Your task to perform on an android device: move a message to another label in the gmail app Image 0: 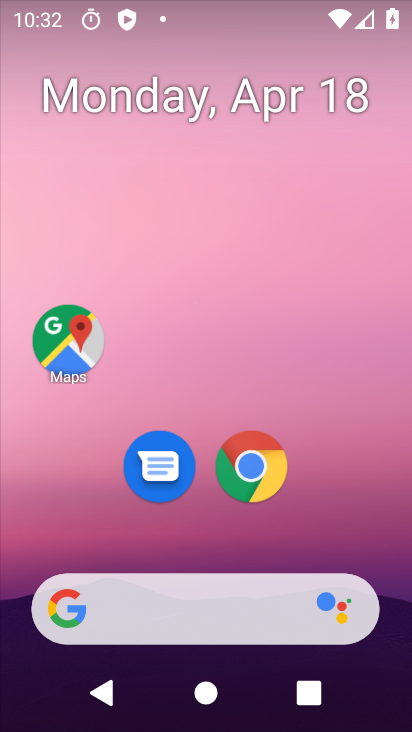
Step 0: drag from (219, 549) to (238, 27)
Your task to perform on an android device: move a message to another label in the gmail app Image 1: 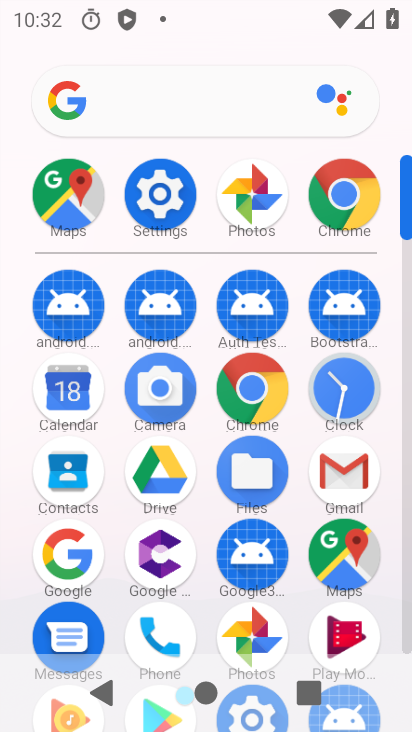
Step 1: click (408, 510)
Your task to perform on an android device: move a message to another label in the gmail app Image 2: 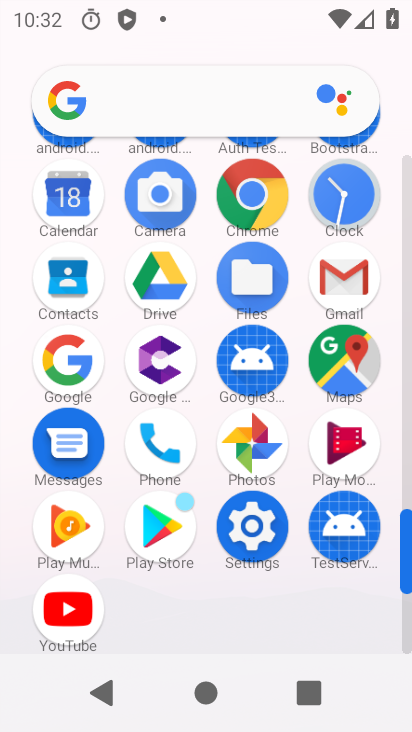
Step 2: click (358, 293)
Your task to perform on an android device: move a message to another label in the gmail app Image 3: 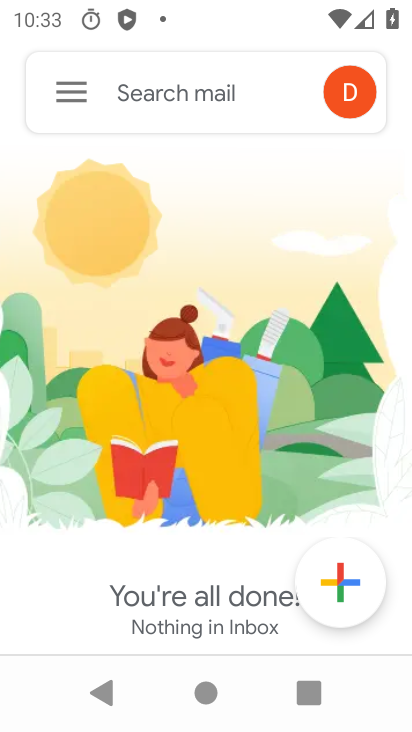
Step 3: click (84, 100)
Your task to perform on an android device: move a message to another label in the gmail app Image 4: 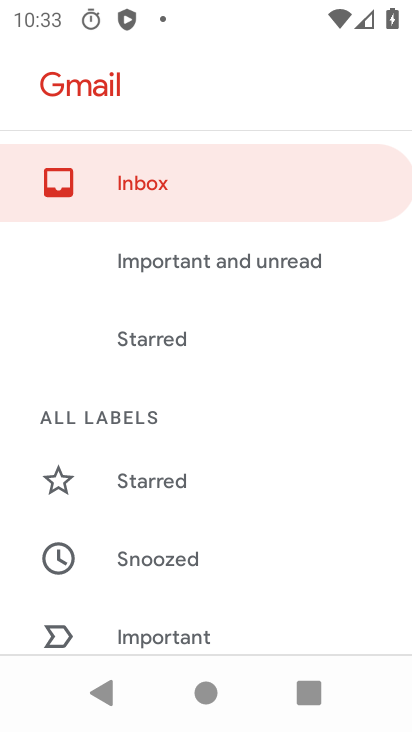
Step 4: drag from (173, 579) to (263, 127)
Your task to perform on an android device: move a message to another label in the gmail app Image 5: 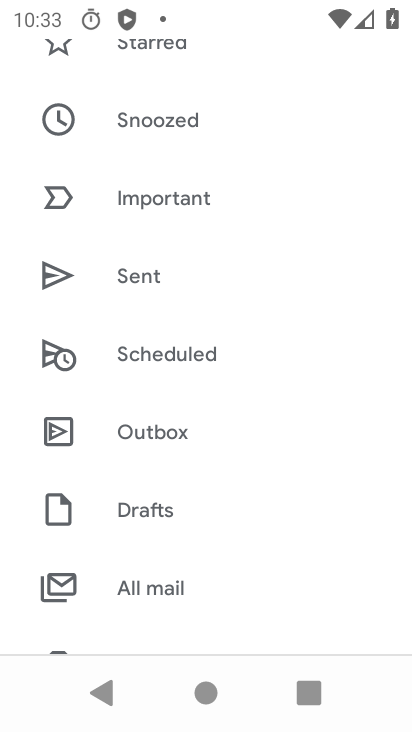
Step 5: click (181, 572)
Your task to perform on an android device: move a message to another label in the gmail app Image 6: 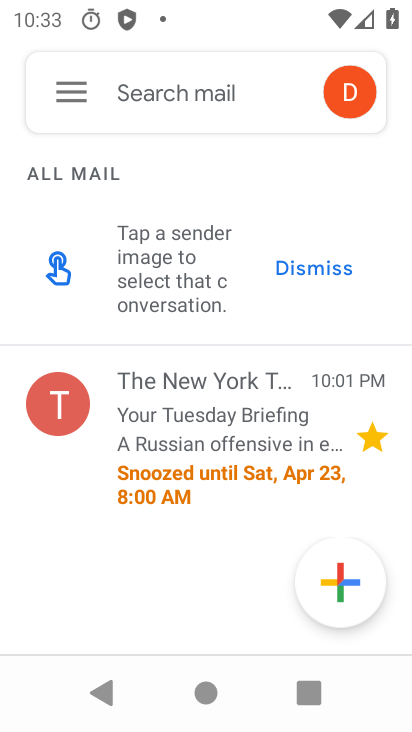
Step 6: click (244, 422)
Your task to perform on an android device: move a message to another label in the gmail app Image 7: 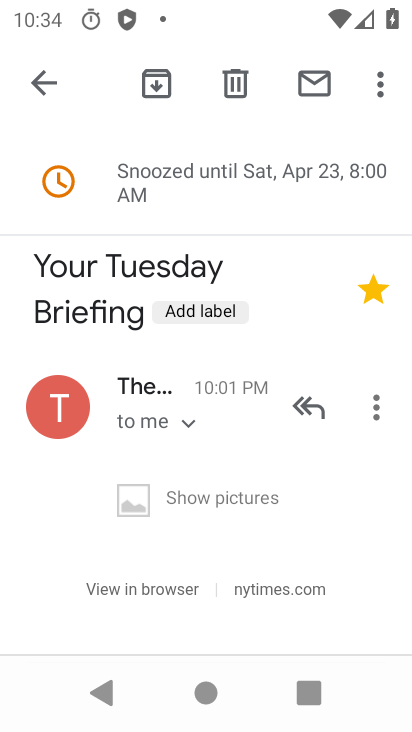
Step 7: click (379, 90)
Your task to perform on an android device: move a message to another label in the gmail app Image 8: 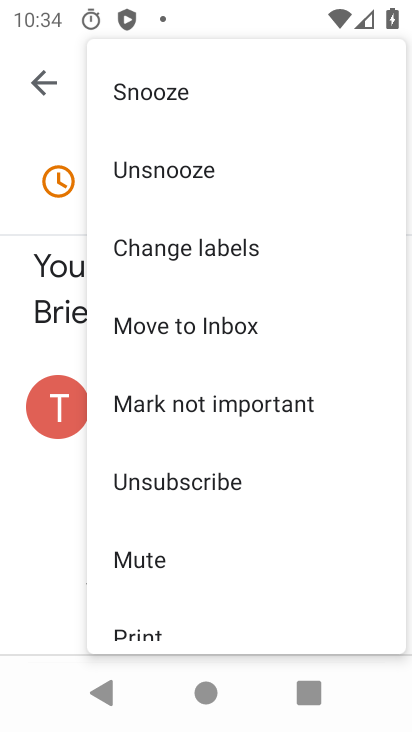
Step 8: click (233, 264)
Your task to perform on an android device: move a message to another label in the gmail app Image 9: 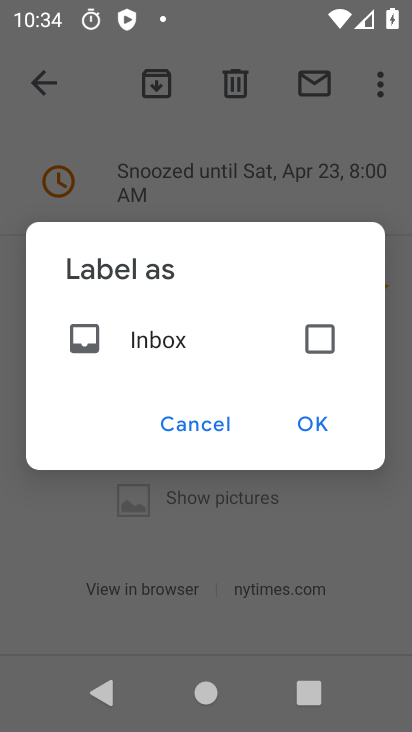
Step 9: click (315, 340)
Your task to perform on an android device: move a message to another label in the gmail app Image 10: 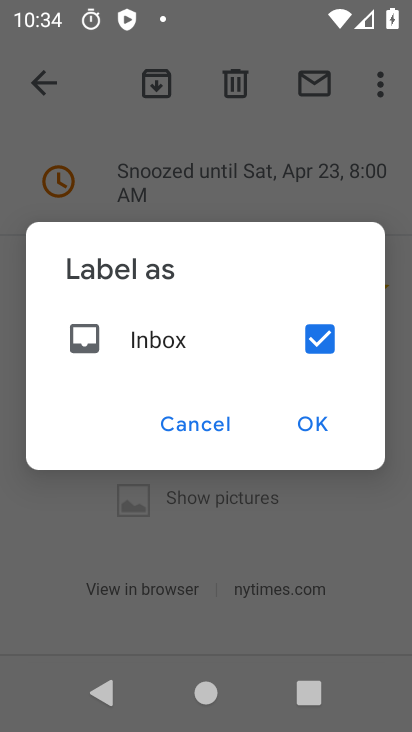
Step 10: click (304, 434)
Your task to perform on an android device: move a message to another label in the gmail app Image 11: 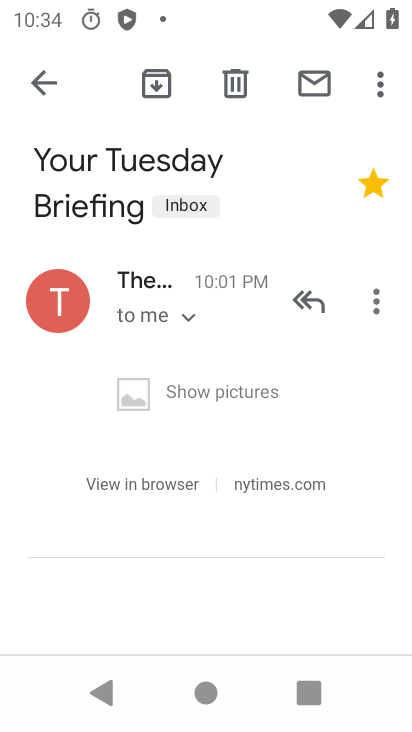
Step 11: task complete